Your task to perform on an android device: Go to notification settings Image 0: 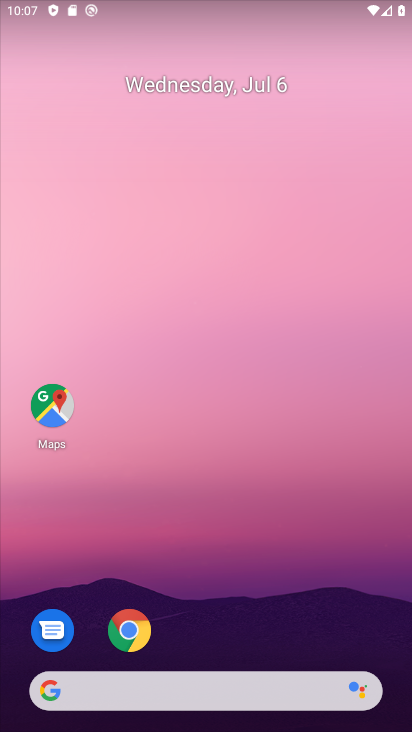
Step 0: drag from (298, 689) to (320, 75)
Your task to perform on an android device: Go to notification settings Image 1: 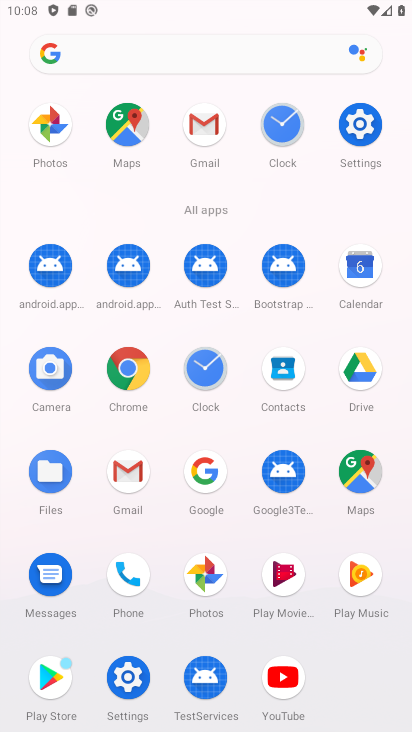
Step 1: click (123, 690)
Your task to perform on an android device: Go to notification settings Image 2: 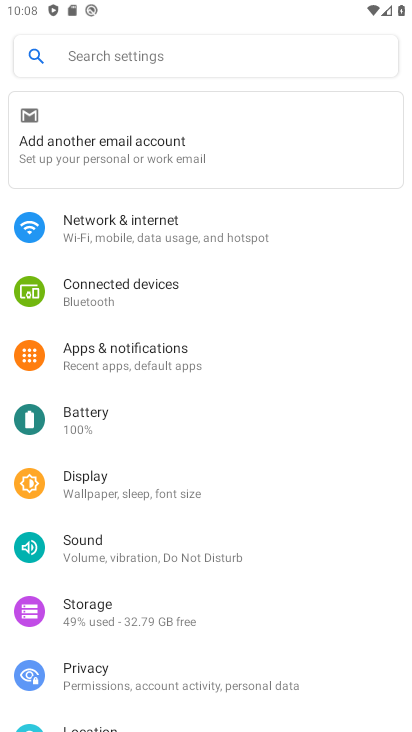
Step 2: click (179, 368)
Your task to perform on an android device: Go to notification settings Image 3: 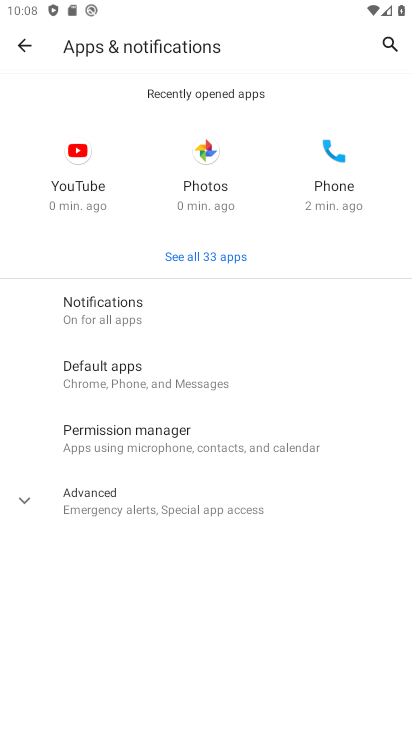
Step 3: task complete